Your task to perform on an android device: Open Google Maps Image 0: 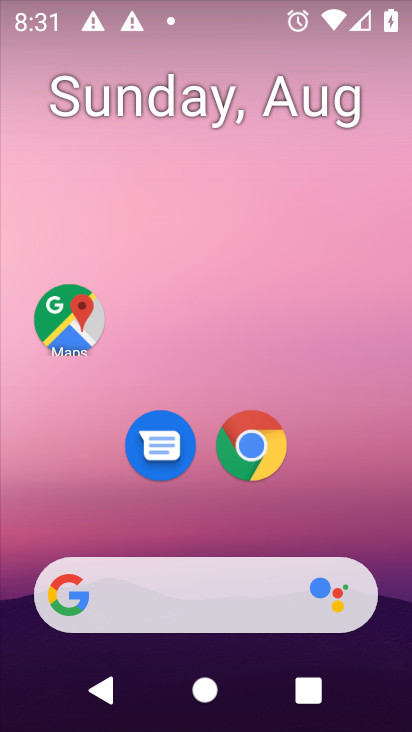
Step 0: press home button
Your task to perform on an android device: Open Google Maps Image 1: 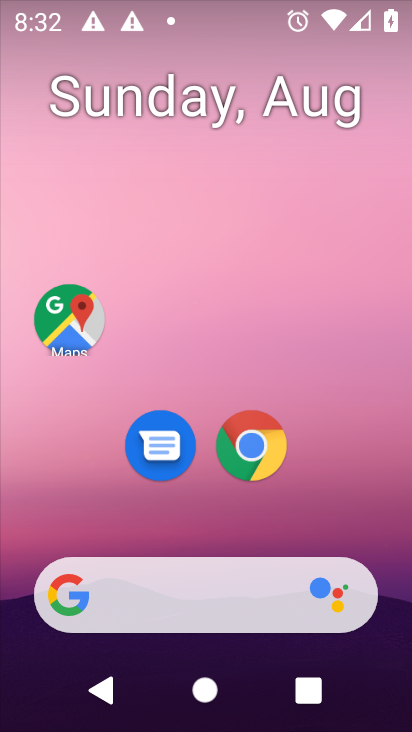
Step 1: click (67, 315)
Your task to perform on an android device: Open Google Maps Image 2: 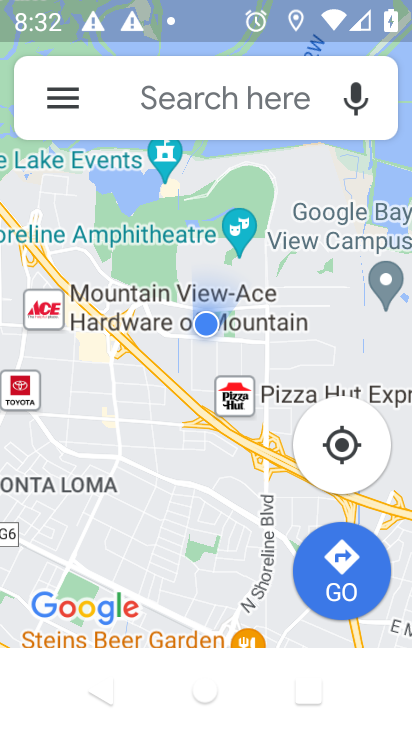
Step 2: task complete